Your task to perform on an android device: Go to Android settings Image 0: 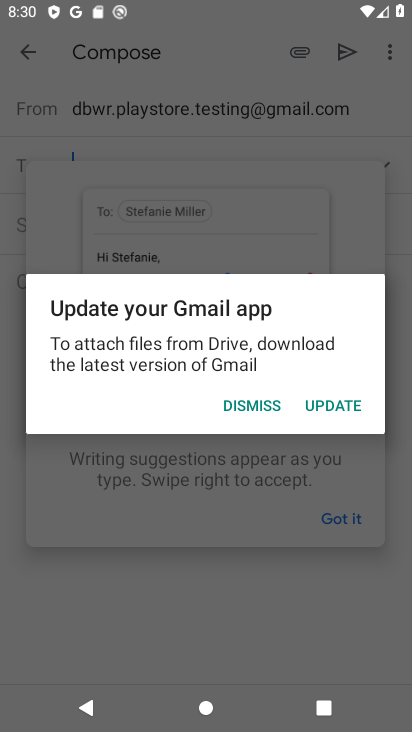
Step 0: press home button
Your task to perform on an android device: Go to Android settings Image 1: 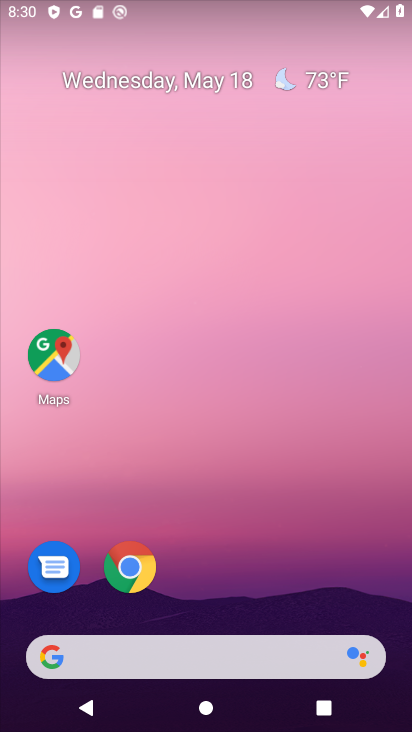
Step 1: drag from (244, 535) to (244, 27)
Your task to perform on an android device: Go to Android settings Image 2: 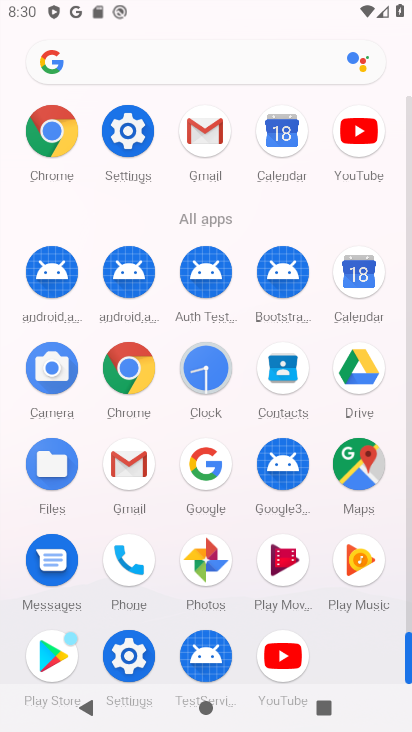
Step 2: click (126, 128)
Your task to perform on an android device: Go to Android settings Image 3: 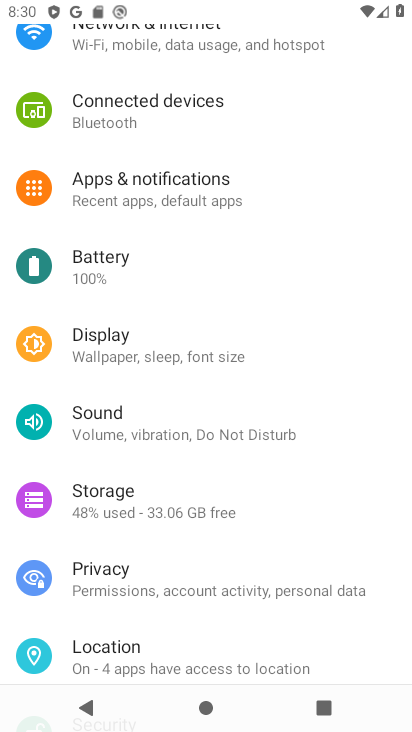
Step 3: task complete